Your task to perform on an android device: turn on showing notifications on the lock screen Image 0: 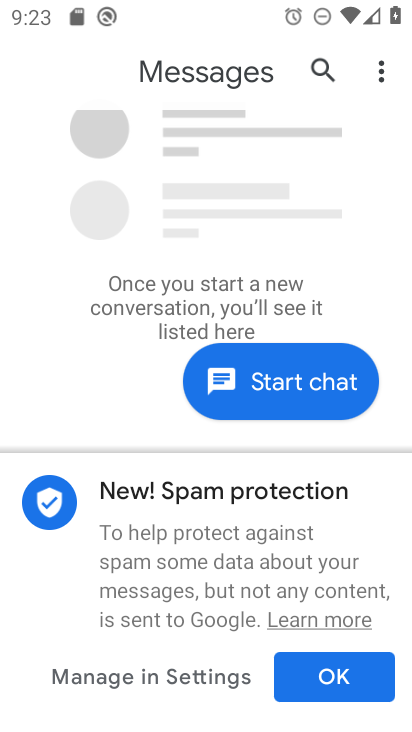
Step 0: press home button
Your task to perform on an android device: turn on showing notifications on the lock screen Image 1: 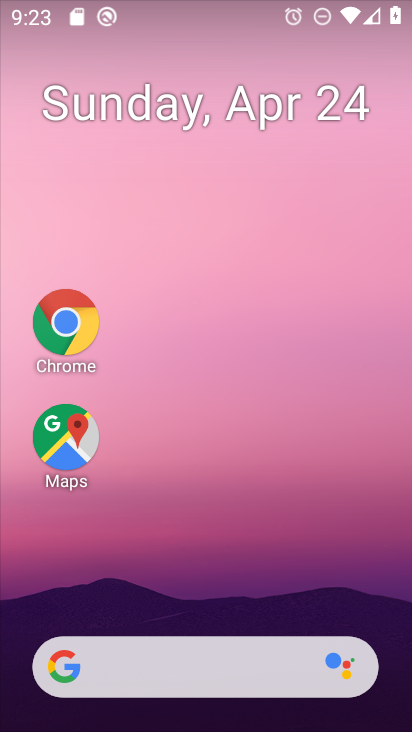
Step 1: drag from (154, 576) to (161, 31)
Your task to perform on an android device: turn on showing notifications on the lock screen Image 2: 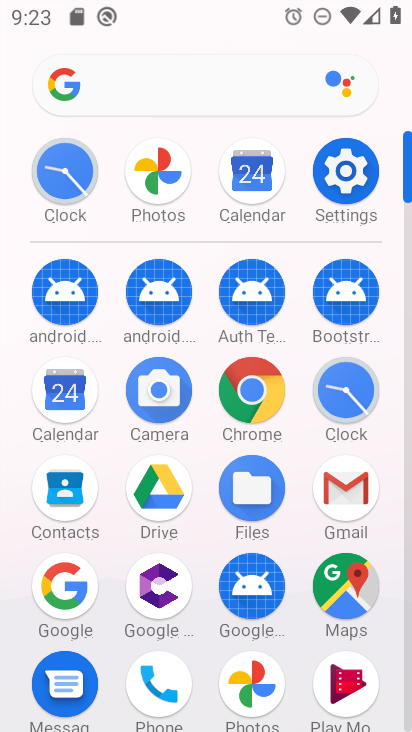
Step 2: click (347, 170)
Your task to perform on an android device: turn on showing notifications on the lock screen Image 3: 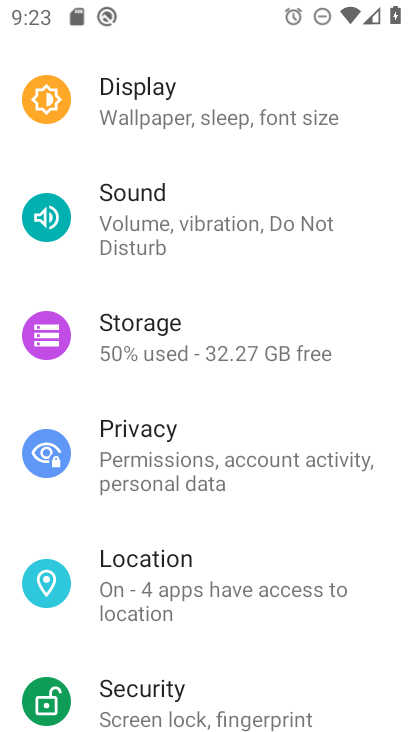
Step 3: drag from (224, 168) to (281, 707)
Your task to perform on an android device: turn on showing notifications on the lock screen Image 4: 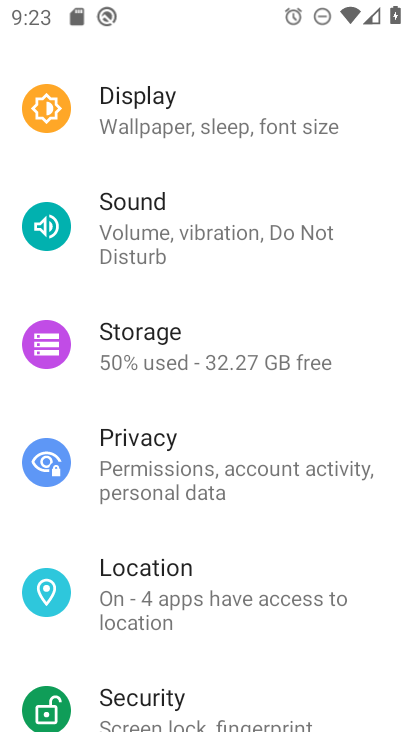
Step 4: drag from (221, 170) to (139, 717)
Your task to perform on an android device: turn on showing notifications on the lock screen Image 5: 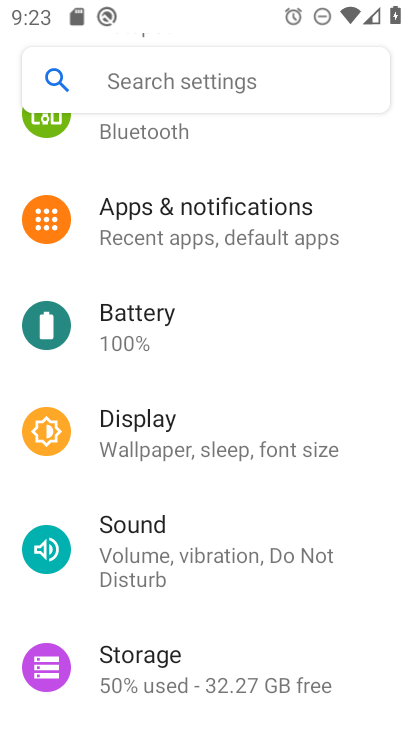
Step 5: click (217, 215)
Your task to perform on an android device: turn on showing notifications on the lock screen Image 6: 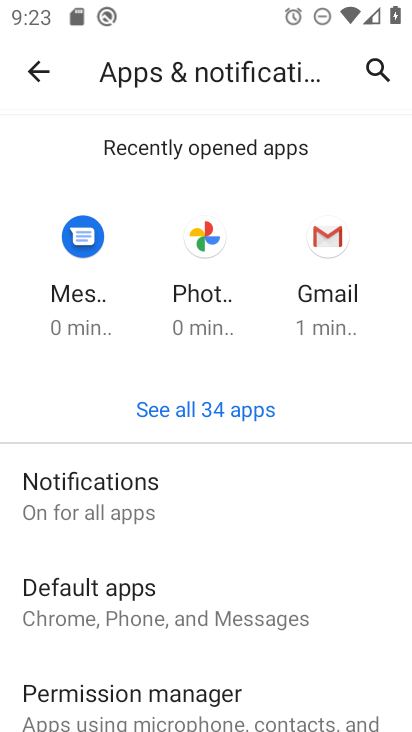
Step 6: click (101, 472)
Your task to perform on an android device: turn on showing notifications on the lock screen Image 7: 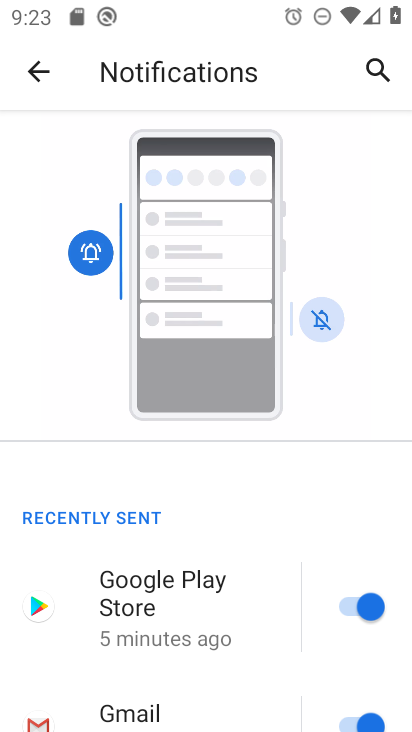
Step 7: drag from (217, 665) to (161, 327)
Your task to perform on an android device: turn on showing notifications on the lock screen Image 8: 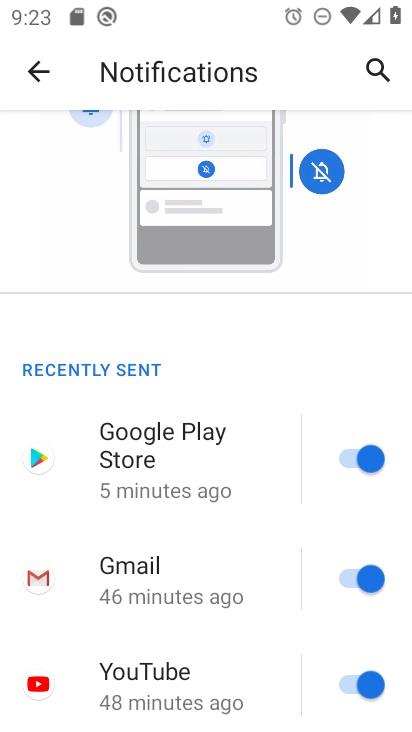
Step 8: drag from (227, 613) to (196, 278)
Your task to perform on an android device: turn on showing notifications on the lock screen Image 9: 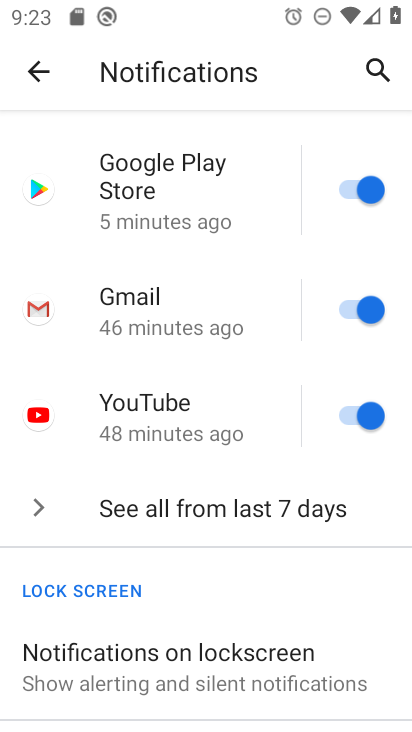
Step 9: drag from (192, 630) to (146, 377)
Your task to perform on an android device: turn on showing notifications on the lock screen Image 10: 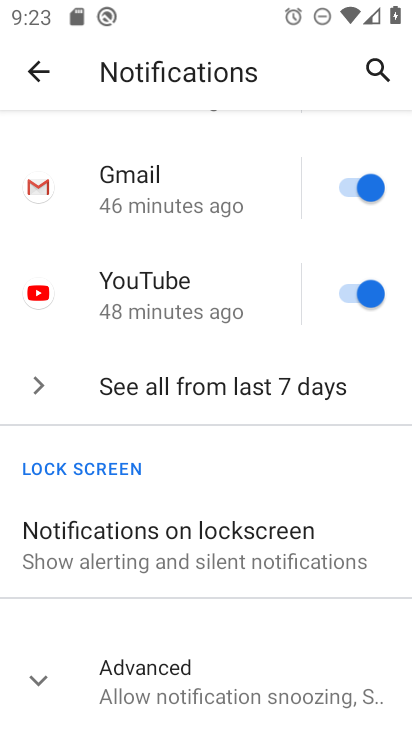
Step 10: click (194, 536)
Your task to perform on an android device: turn on showing notifications on the lock screen Image 11: 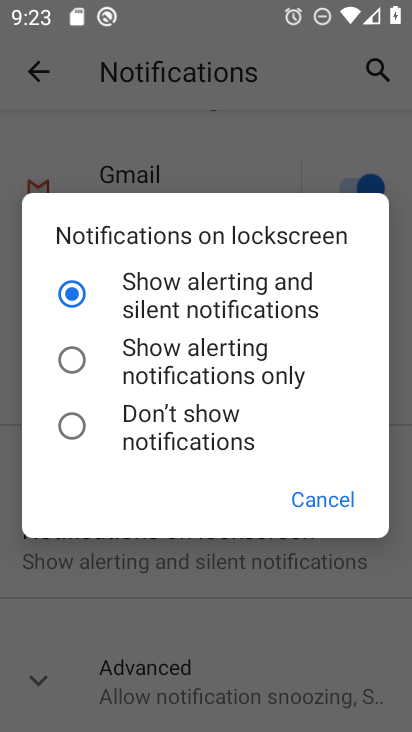
Step 11: task complete